Your task to perform on an android device: Go to Yahoo.com Image 0: 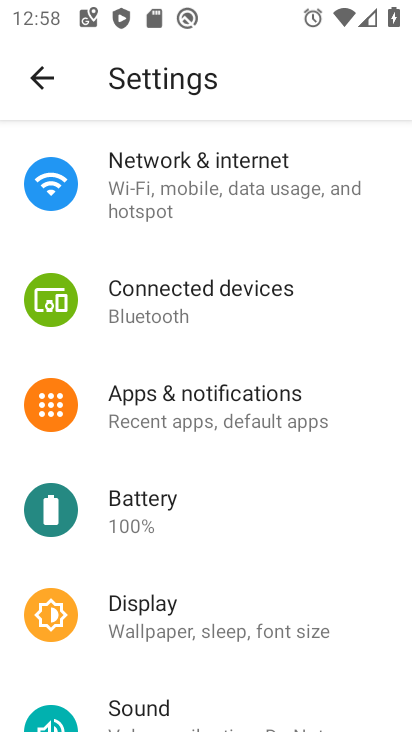
Step 0: press home button
Your task to perform on an android device: Go to Yahoo.com Image 1: 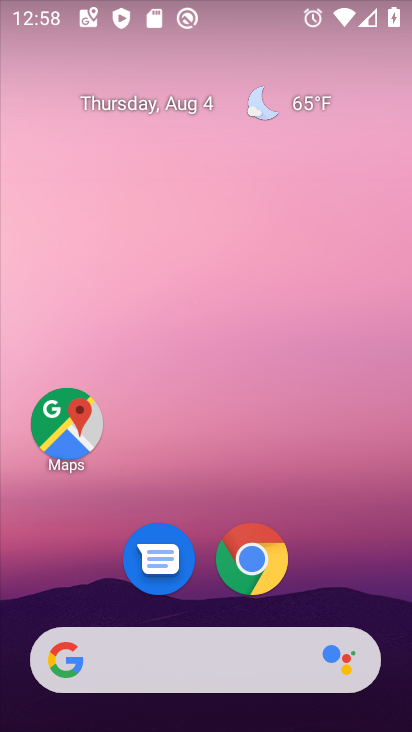
Step 1: click (249, 559)
Your task to perform on an android device: Go to Yahoo.com Image 2: 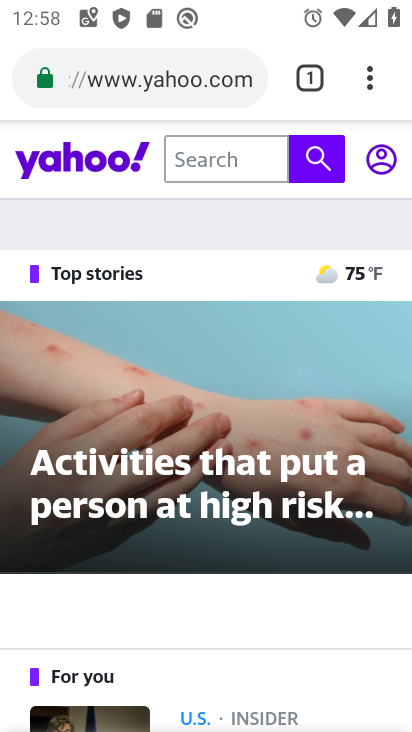
Step 2: task complete